Your task to perform on an android device: make emails show in primary in the gmail app Image 0: 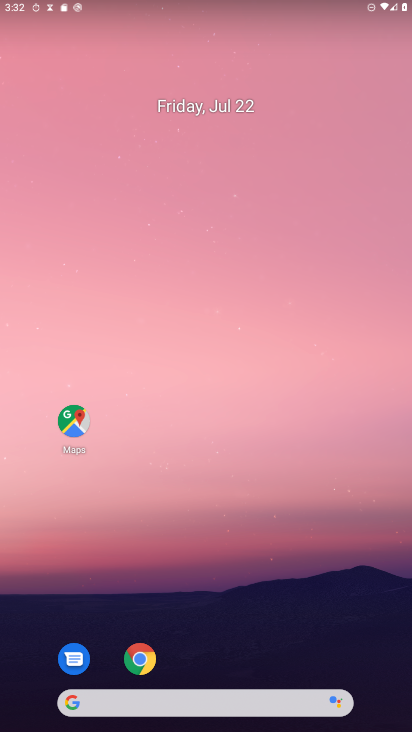
Step 0: drag from (296, 570) to (341, 14)
Your task to perform on an android device: make emails show in primary in the gmail app Image 1: 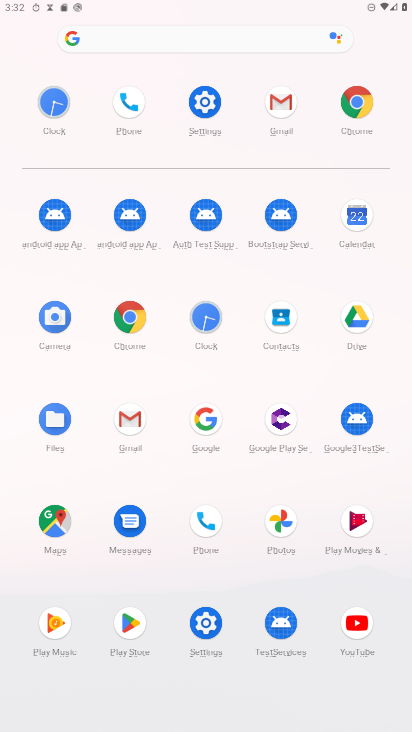
Step 1: click (287, 112)
Your task to perform on an android device: make emails show in primary in the gmail app Image 2: 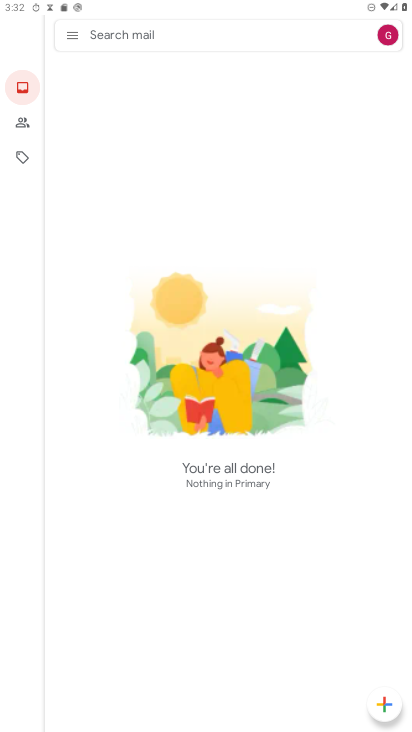
Step 2: click (77, 39)
Your task to perform on an android device: make emails show in primary in the gmail app Image 3: 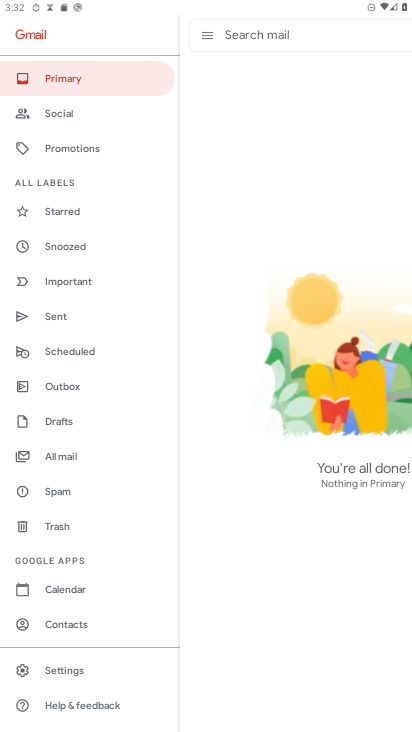
Step 3: click (43, 670)
Your task to perform on an android device: make emails show in primary in the gmail app Image 4: 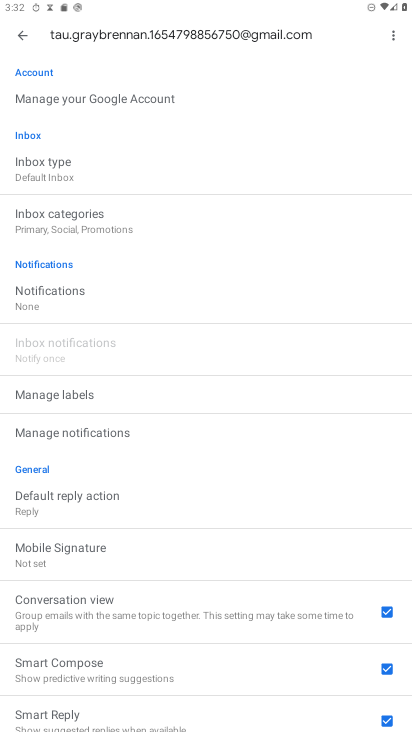
Step 4: click (47, 181)
Your task to perform on an android device: make emails show in primary in the gmail app Image 5: 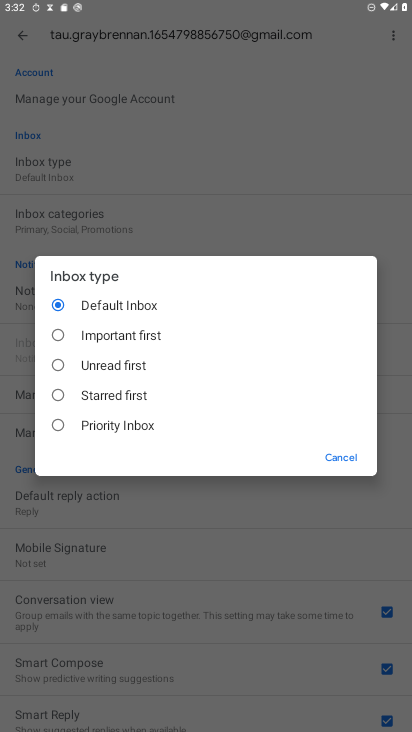
Step 5: task complete